Your task to perform on an android device: create a new album in the google photos Image 0: 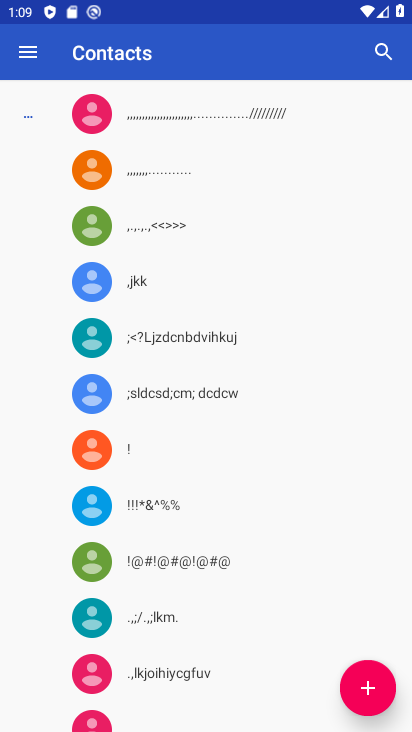
Step 0: press back button
Your task to perform on an android device: create a new album in the google photos Image 1: 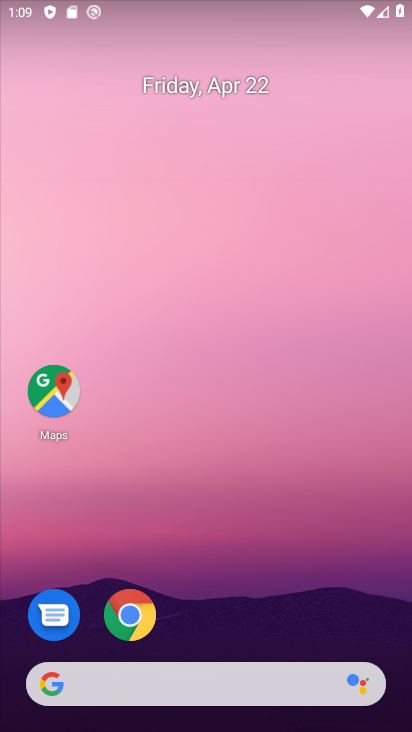
Step 1: drag from (258, 546) to (296, 115)
Your task to perform on an android device: create a new album in the google photos Image 2: 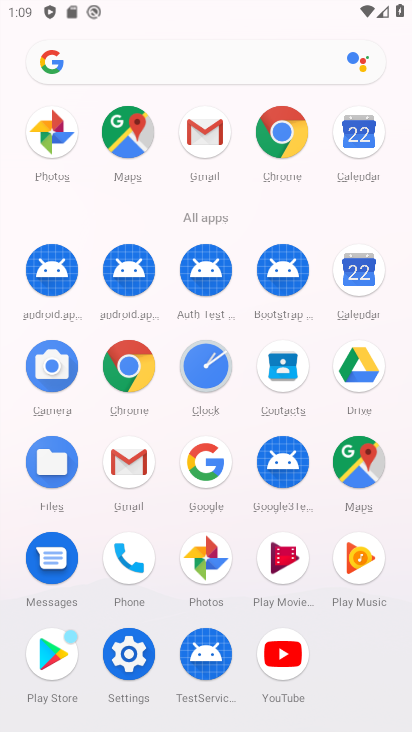
Step 2: click (192, 549)
Your task to perform on an android device: create a new album in the google photos Image 3: 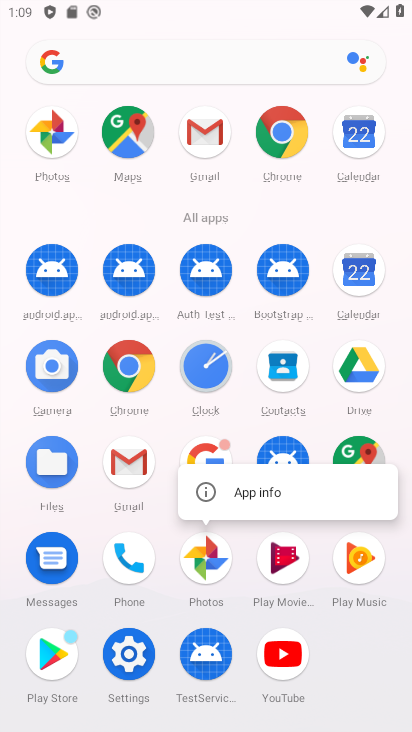
Step 3: click (200, 560)
Your task to perform on an android device: create a new album in the google photos Image 4: 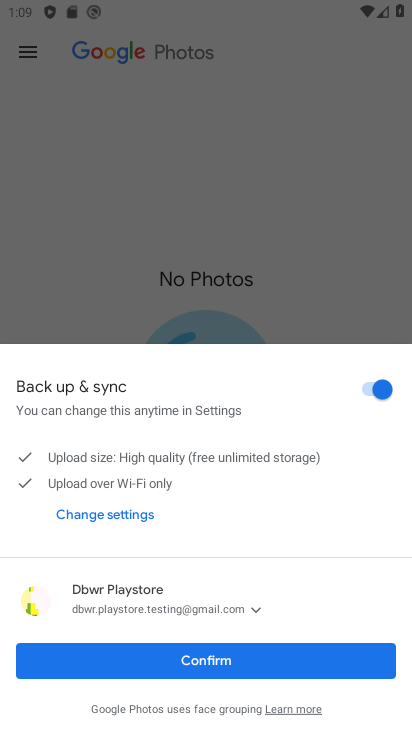
Step 4: click (283, 664)
Your task to perform on an android device: create a new album in the google photos Image 5: 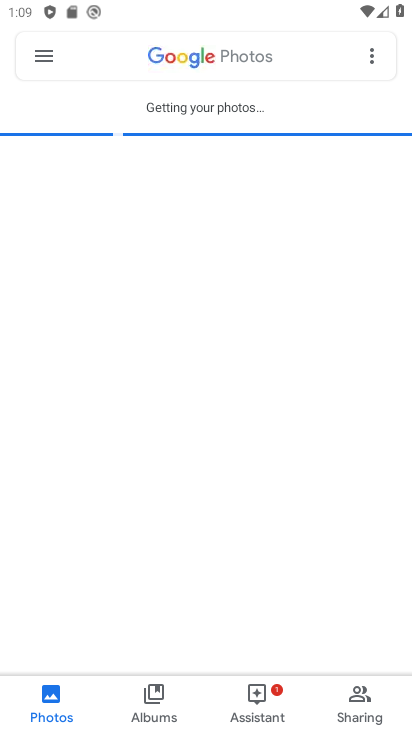
Step 5: click (152, 700)
Your task to perform on an android device: create a new album in the google photos Image 6: 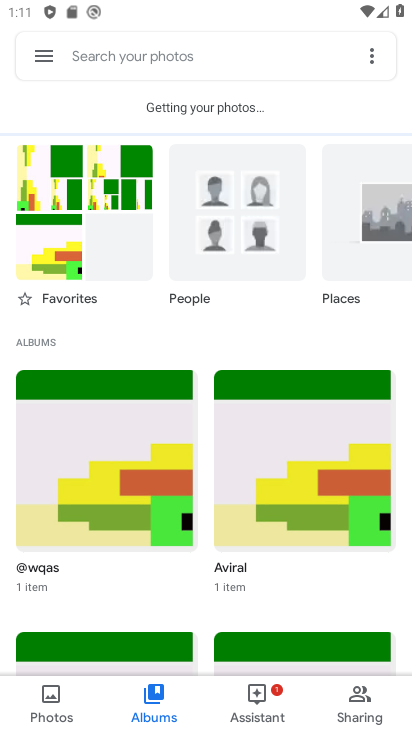
Step 6: click (370, 56)
Your task to perform on an android device: create a new album in the google photos Image 7: 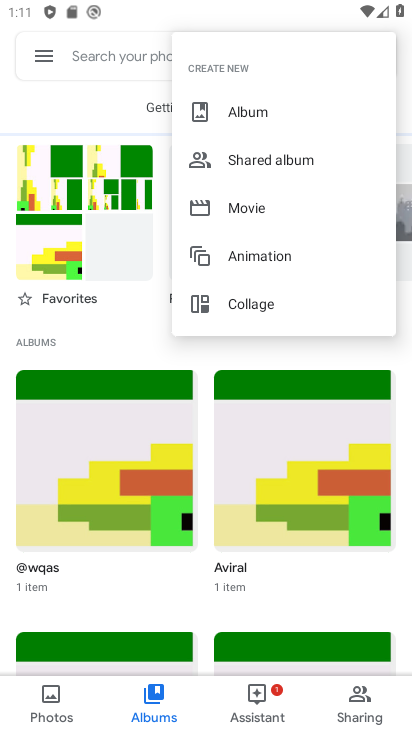
Step 7: click (271, 112)
Your task to perform on an android device: create a new album in the google photos Image 8: 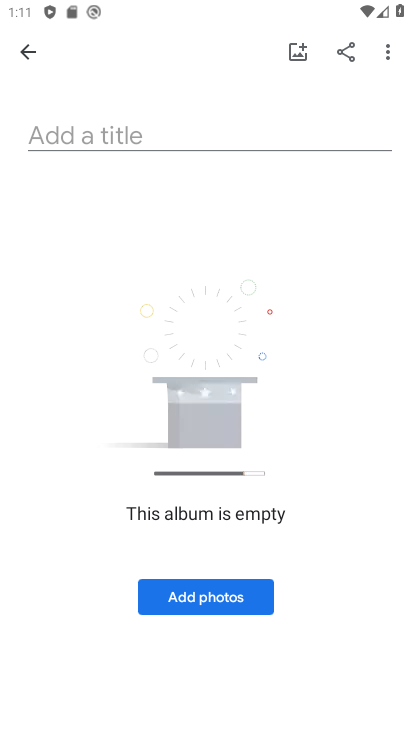
Step 8: click (141, 141)
Your task to perform on an android device: create a new album in the google photos Image 9: 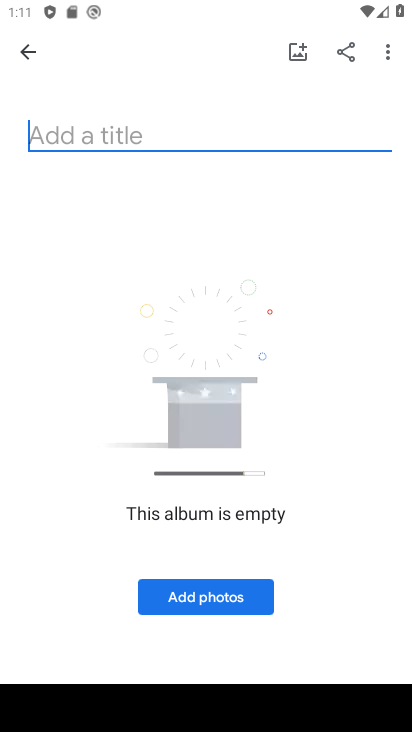
Step 9: type "vfv"
Your task to perform on an android device: create a new album in the google photos Image 10: 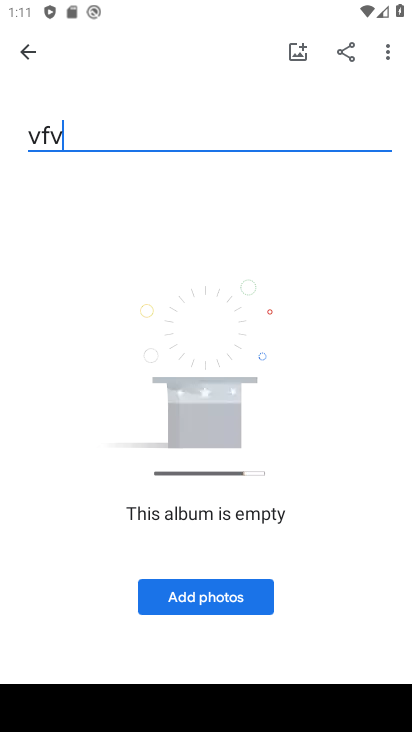
Step 10: click (227, 595)
Your task to perform on an android device: create a new album in the google photos Image 11: 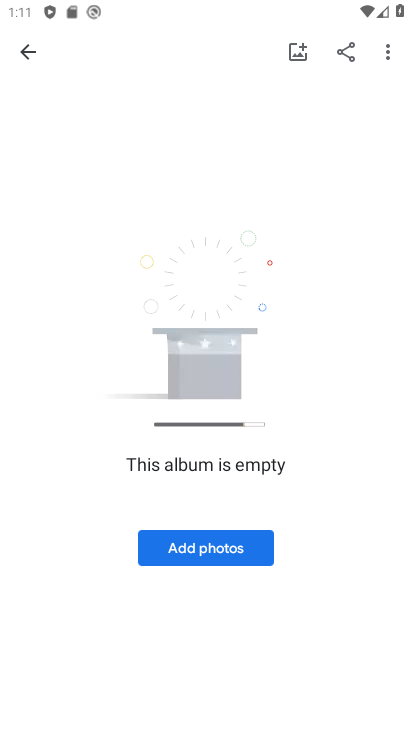
Step 11: click (233, 551)
Your task to perform on an android device: create a new album in the google photos Image 12: 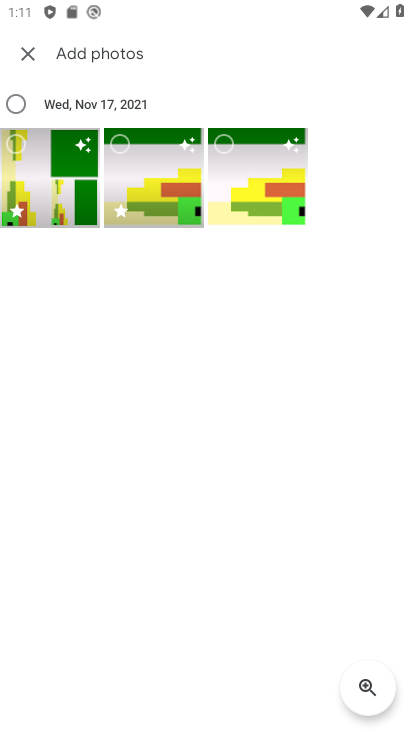
Step 12: click (21, 100)
Your task to perform on an android device: create a new album in the google photos Image 13: 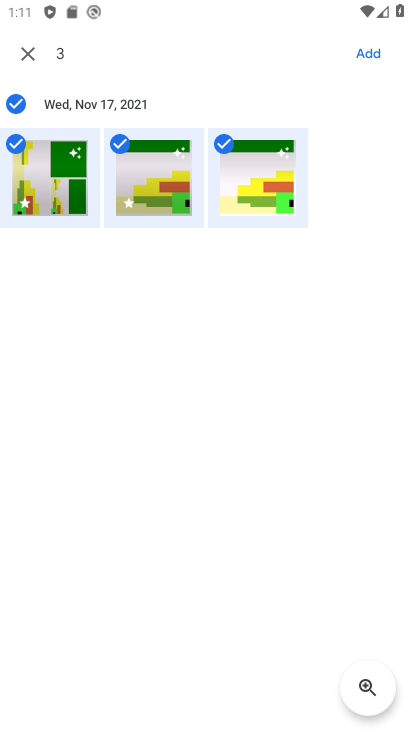
Step 13: click (374, 59)
Your task to perform on an android device: create a new album in the google photos Image 14: 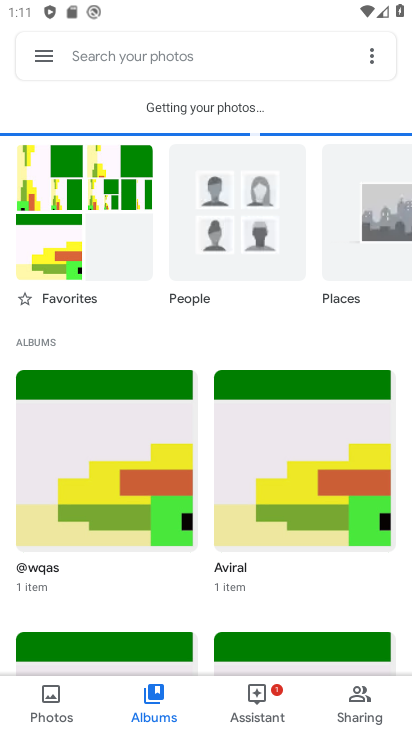
Step 14: task complete